Your task to perform on an android device: turn off wifi Image 0: 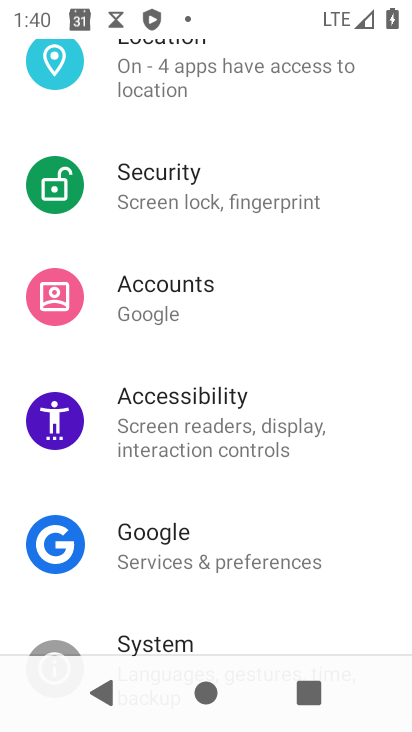
Step 0: press back button
Your task to perform on an android device: turn off wifi Image 1: 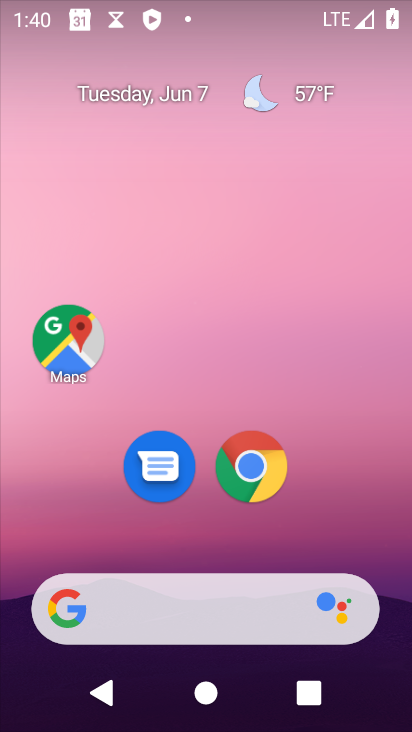
Step 1: task complete